Your task to perform on an android device: delete browsing data in the chrome app Image 0: 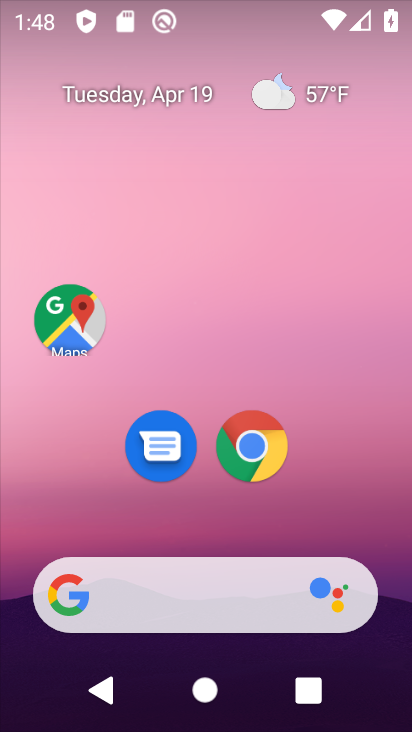
Step 0: drag from (358, 489) to (339, 0)
Your task to perform on an android device: delete browsing data in the chrome app Image 1: 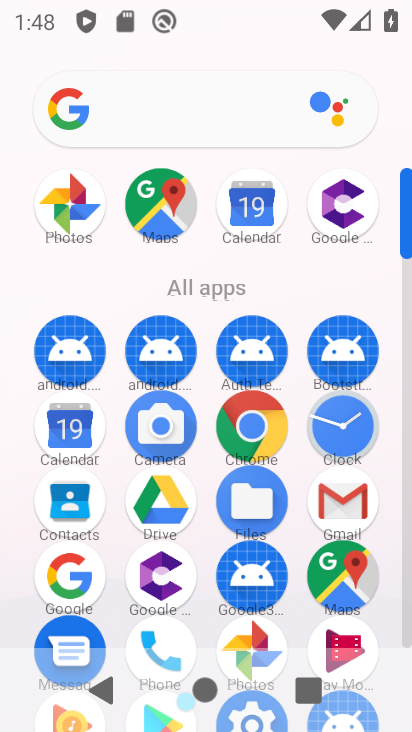
Step 1: click (277, 435)
Your task to perform on an android device: delete browsing data in the chrome app Image 2: 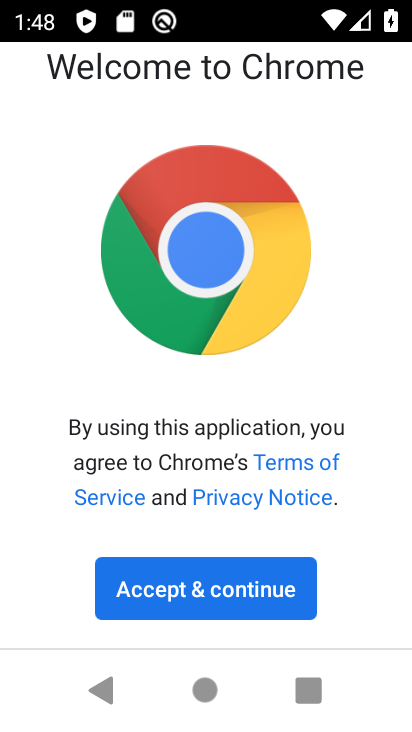
Step 2: click (233, 586)
Your task to perform on an android device: delete browsing data in the chrome app Image 3: 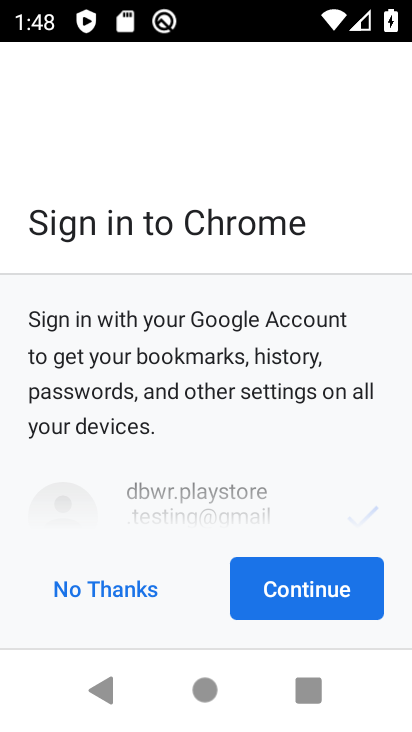
Step 3: click (126, 598)
Your task to perform on an android device: delete browsing data in the chrome app Image 4: 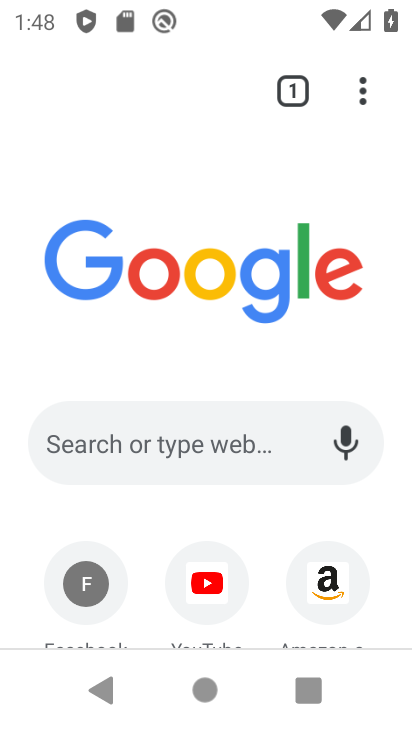
Step 4: drag from (359, 96) to (92, 510)
Your task to perform on an android device: delete browsing data in the chrome app Image 5: 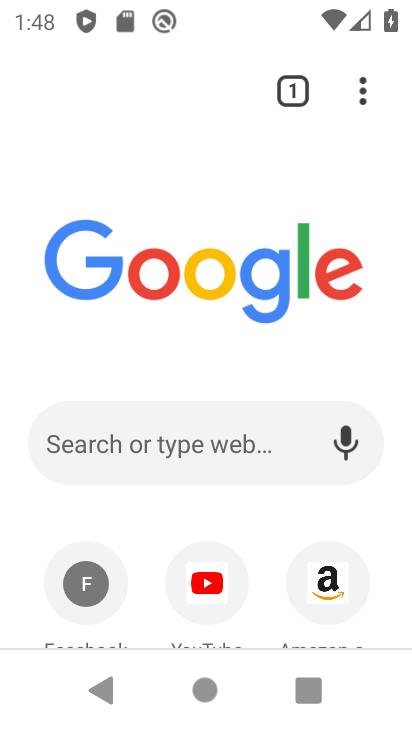
Step 5: click (75, 516)
Your task to perform on an android device: delete browsing data in the chrome app Image 6: 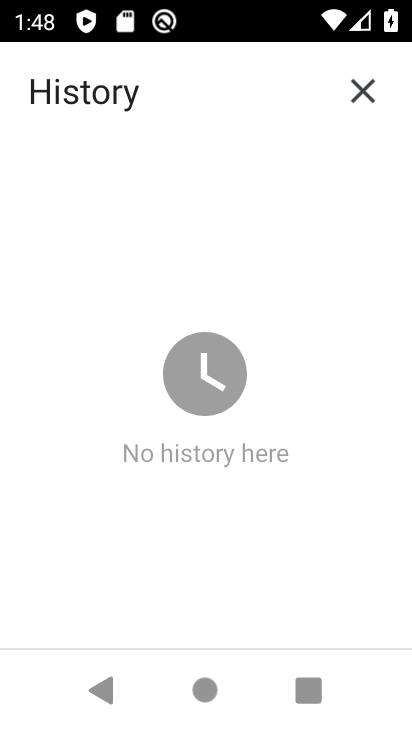
Step 6: task complete